Your task to perform on an android device: refresh tabs in the chrome app Image 0: 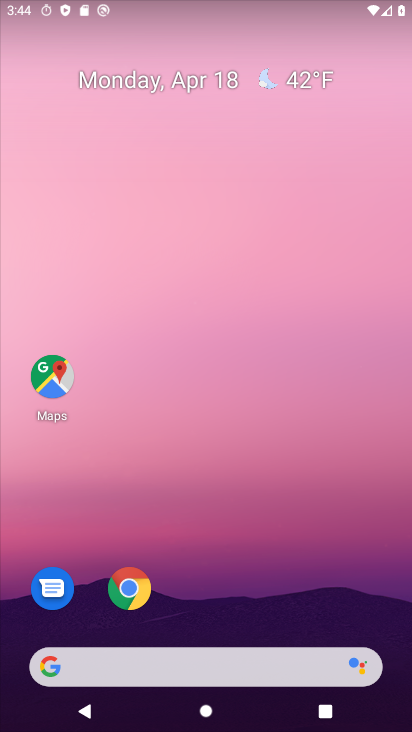
Step 0: click (146, 600)
Your task to perform on an android device: refresh tabs in the chrome app Image 1: 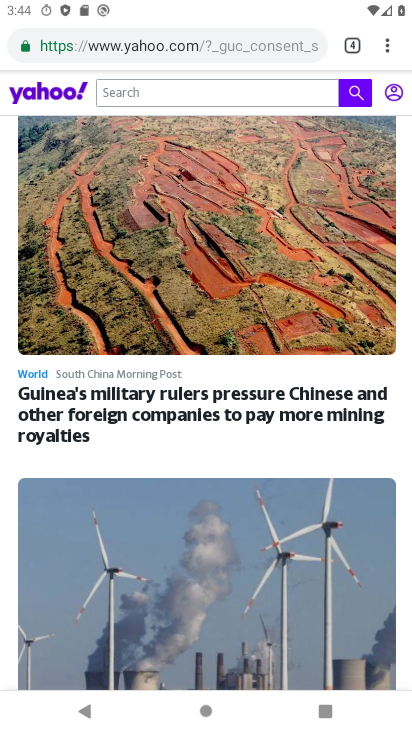
Step 1: click (392, 51)
Your task to perform on an android device: refresh tabs in the chrome app Image 2: 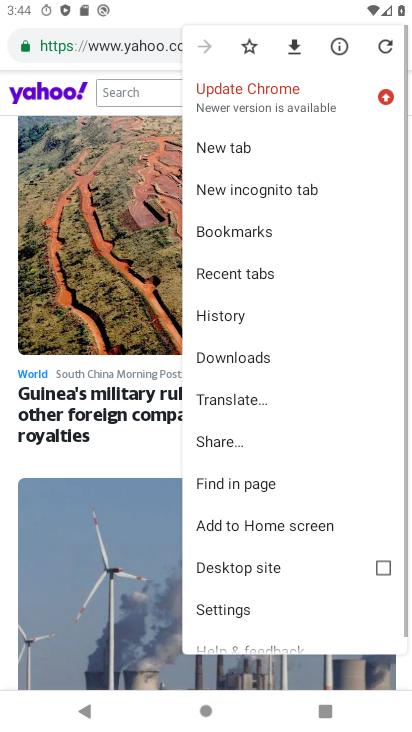
Step 2: click (392, 51)
Your task to perform on an android device: refresh tabs in the chrome app Image 3: 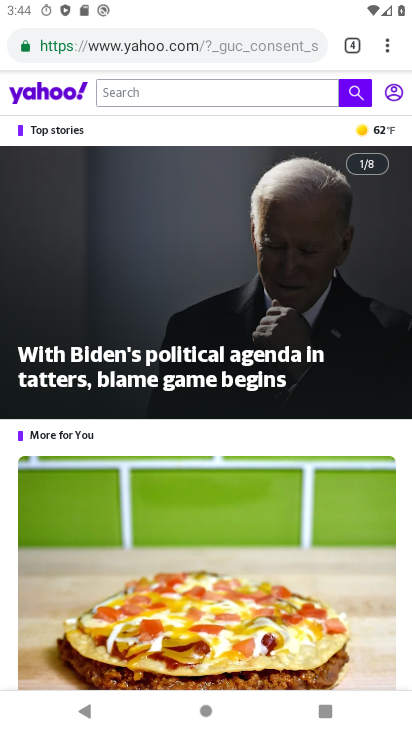
Step 3: task complete